Your task to perform on an android device: Search for the Nintendo Switch. Image 0: 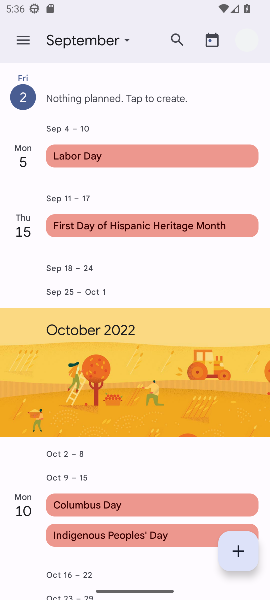
Step 0: press home button
Your task to perform on an android device: Search for the Nintendo Switch. Image 1: 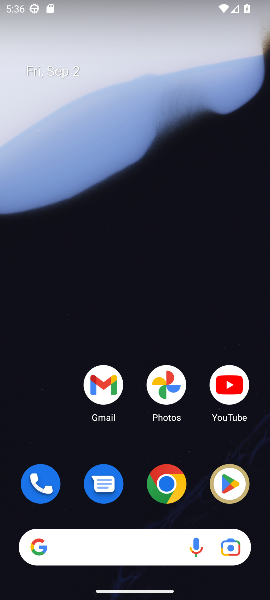
Step 1: click (169, 478)
Your task to perform on an android device: Search for the Nintendo Switch. Image 2: 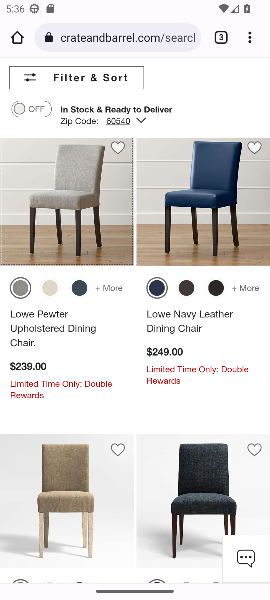
Step 2: click (172, 35)
Your task to perform on an android device: Search for the Nintendo Switch. Image 3: 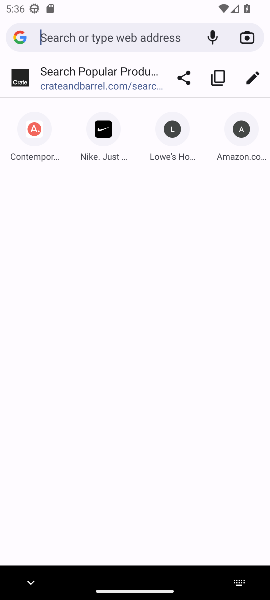
Step 3: type "Nintendo Switch"
Your task to perform on an android device: Search for the Nintendo Switch. Image 4: 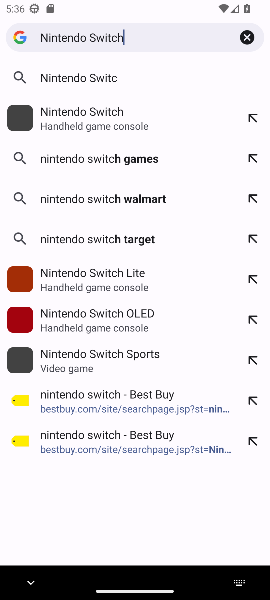
Step 4: press enter
Your task to perform on an android device: Search for the Nintendo Switch. Image 5: 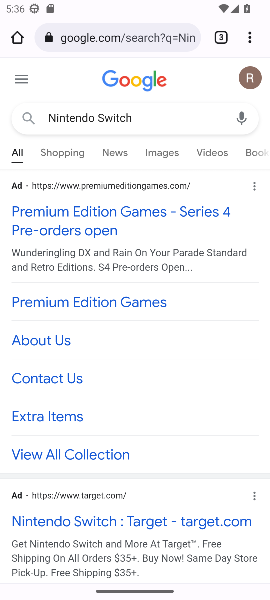
Step 5: task complete